Your task to perform on an android device: open app "Google Sheets" Image 0: 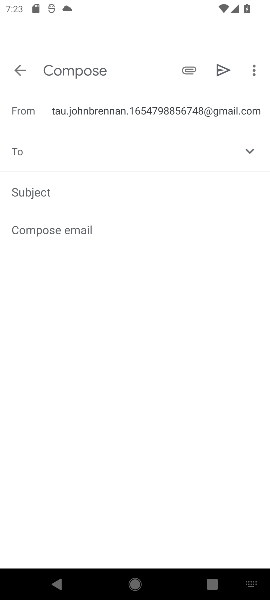
Step 0: press home button
Your task to perform on an android device: open app "Google Sheets" Image 1: 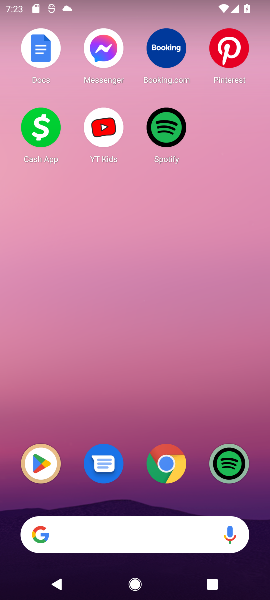
Step 1: click (30, 477)
Your task to perform on an android device: open app "Google Sheets" Image 2: 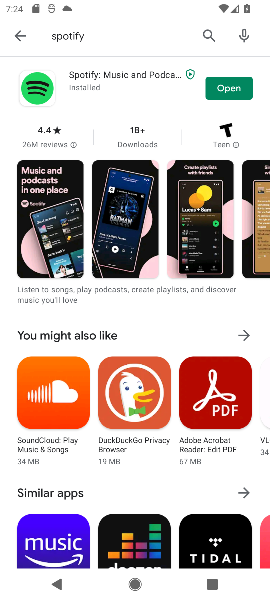
Step 2: click (197, 23)
Your task to perform on an android device: open app "Google Sheets" Image 3: 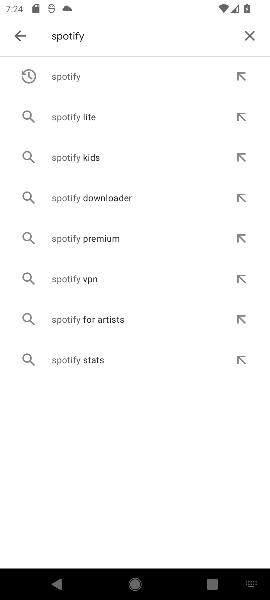
Step 3: click (255, 42)
Your task to perform on an android device: open app "Google Sheets" Image 4: 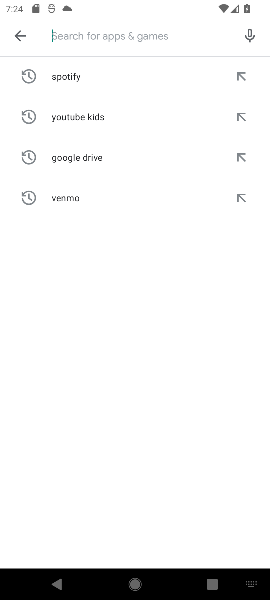
Step 4: type "google sheet"
Your task to perform on an android device: open app "Google Sheets" Image 5: 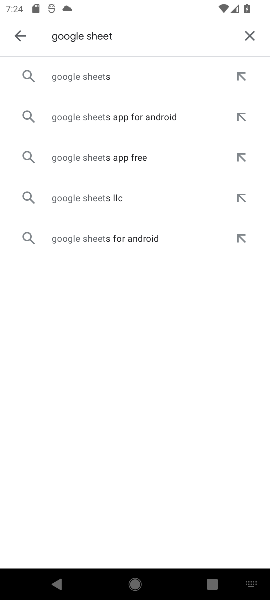
Step 5: click (98, 72)
Your task to perform on an android device: open app "Google Sheets" Image 6: 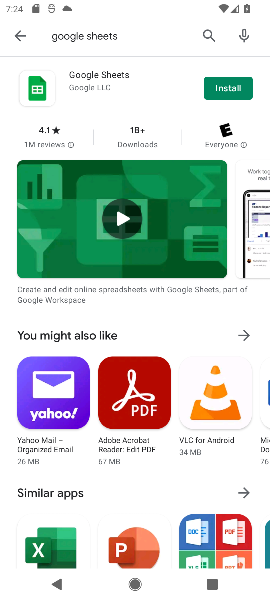
Step 6: click (215, 92)
Your task to perform on an android device: open app "Google Sheets" Image 7: 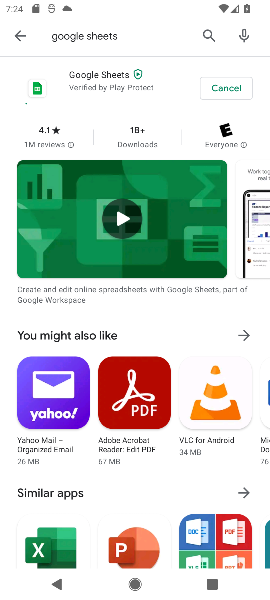
Step 7: task complete